Your task to perform on an android device: change the clock style Image 0: 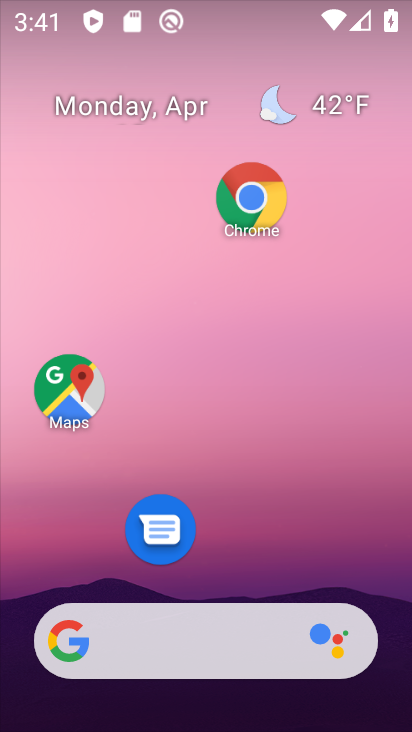
Step 0: drag from (237, 546) to (224, 164)
Your task to perform on an android device: change the clock style Image 1: 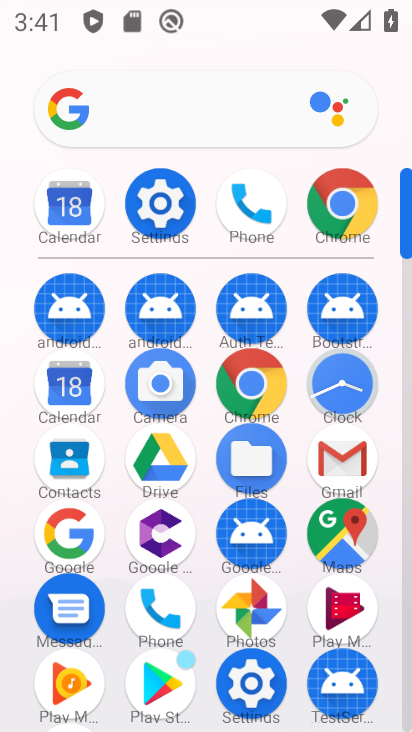
Step 1: click (348, 378)
Your task to perform on an android device: change the clock style Image 2: 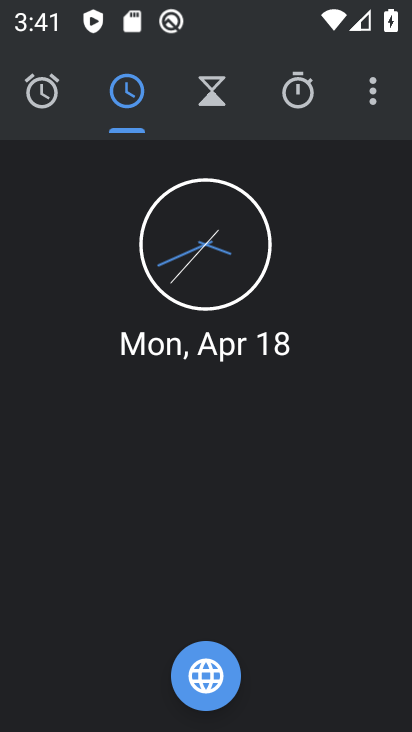
Step 2: click (369, 81)
Your task to perform on an android device: change the clock style Image 3: 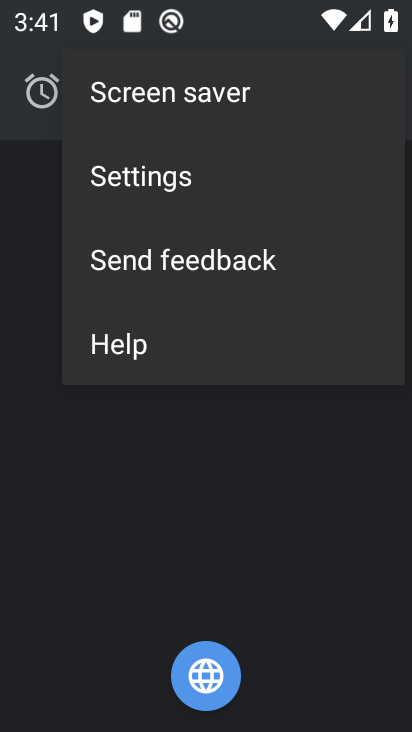
Step 3: click (101, 170)
Your task to perform on an android device: change the clock style Image 4: 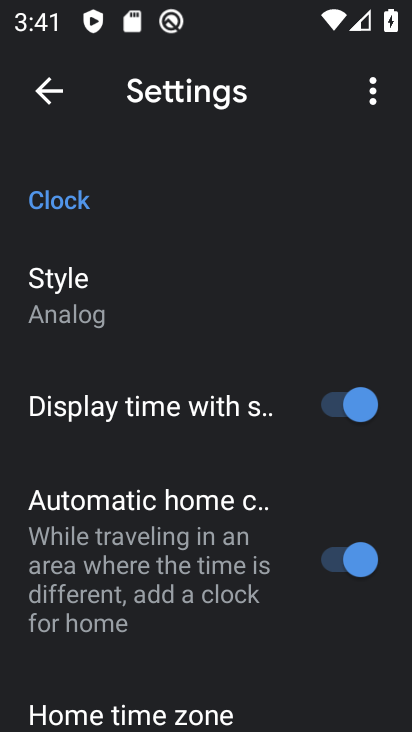
Step 4: click (98, 292)
Your task to perform on an android device: change the clock style Image 5: 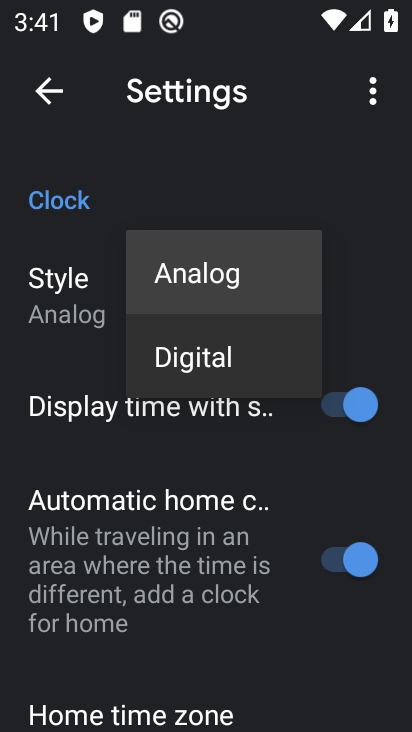
Step 5: click (216, 349)
Your task to perform on an android device: change the clock style Image 6: 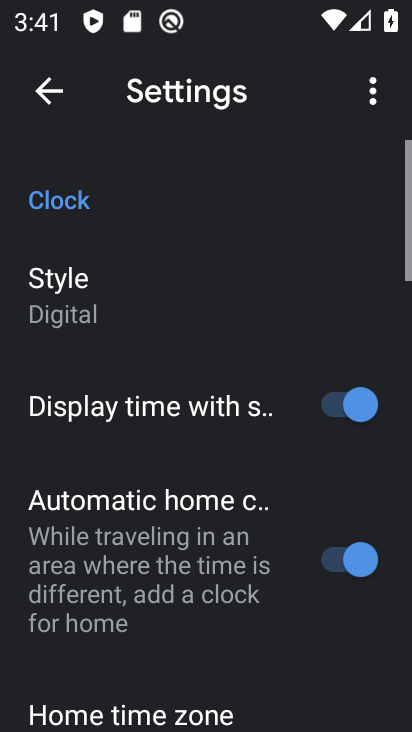
Step 6: task complete